Your task to perform on an android device: Go to accessibility settings Image 0: 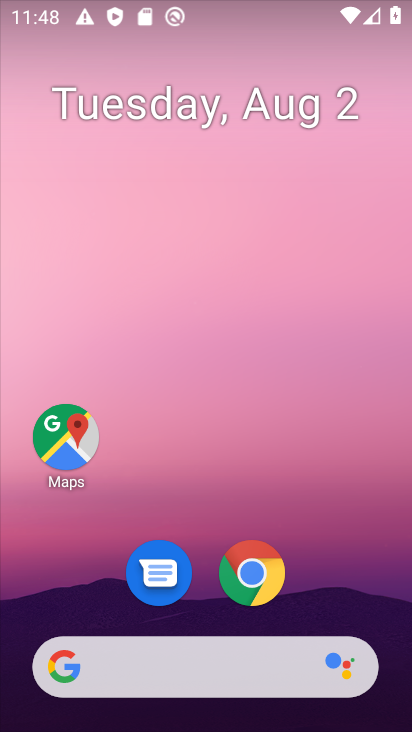
Step 0: drag from (228, 424) to (56, 720)
Your task to perform on an android device: Go to accessibility settings Image 1: 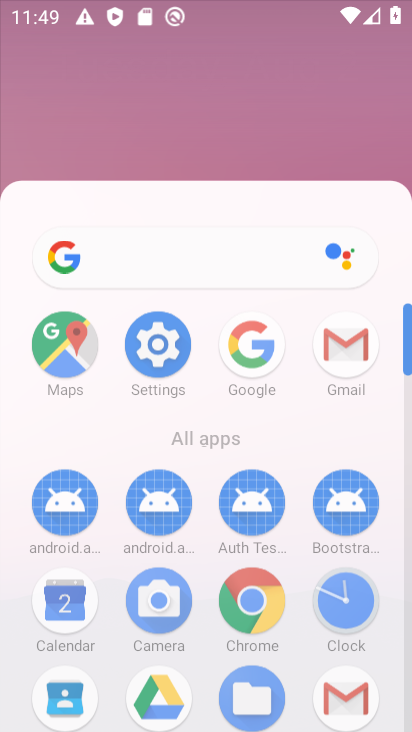
Step 1: drag from (134, 507) to (158, 173)
Your task to perform on an android device: Go to accessibility settings Image 2: 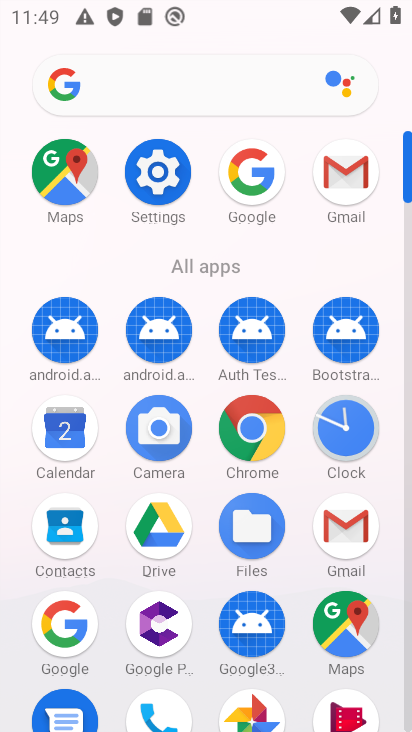
Step 2: drag from (204, 593) to (195, 177)
Your task to perform on an android device: Go to accessibility settings Image 3: 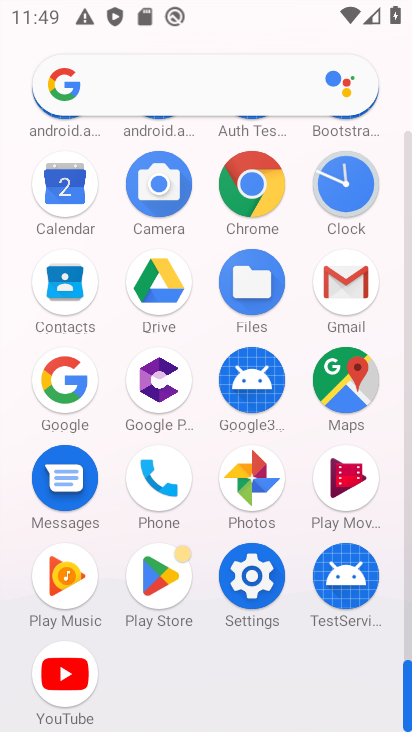
Step 3: drag from (211, 553) to (193, 163)
Your task to perform on an android device: Go to accessibility settings Image 4: 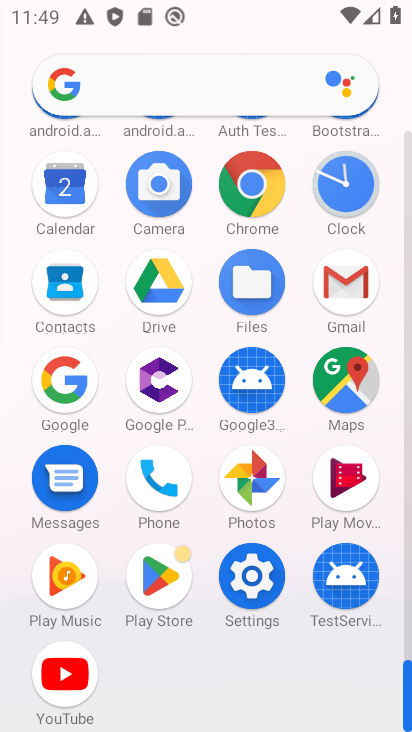
Step 4: click (243, 557)
Your task to perform on an android device: Go to accessibility settings Image 5: 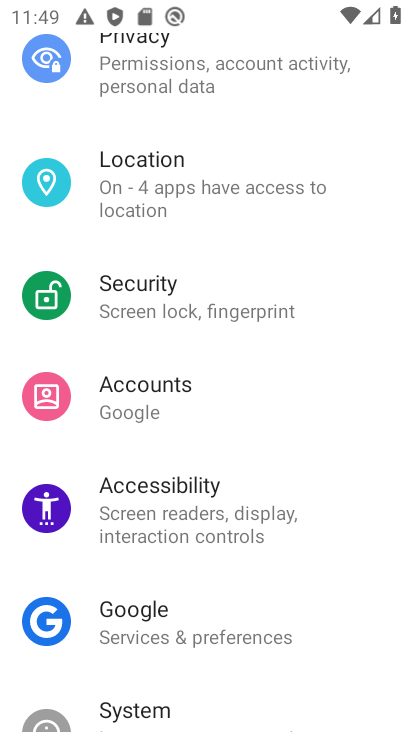
Step 5: drag from (173, 564) to (190, 115)
Your task to perform on an android device: Go to accessibility settings Image 6: 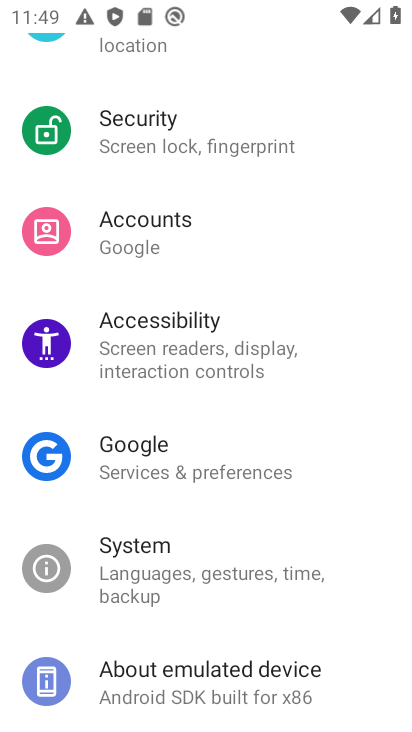
Step 6: click (261, 348)
Your task to perform on an android device: Go to accessibility settings Image 7: 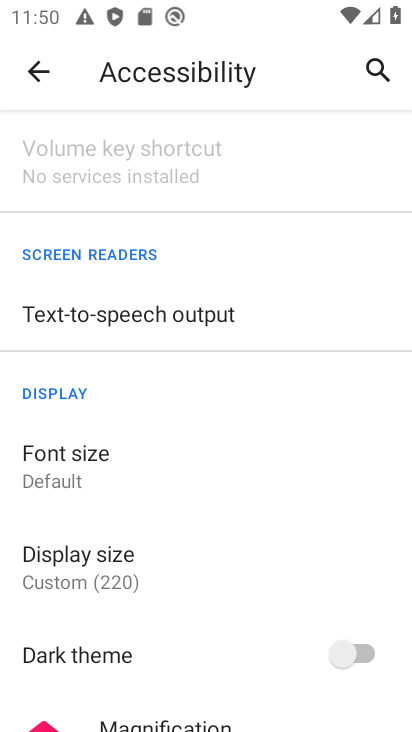
Step 7: click (250, 484)
Your task to perform on an android device: Go to accessibility settings Image 8: 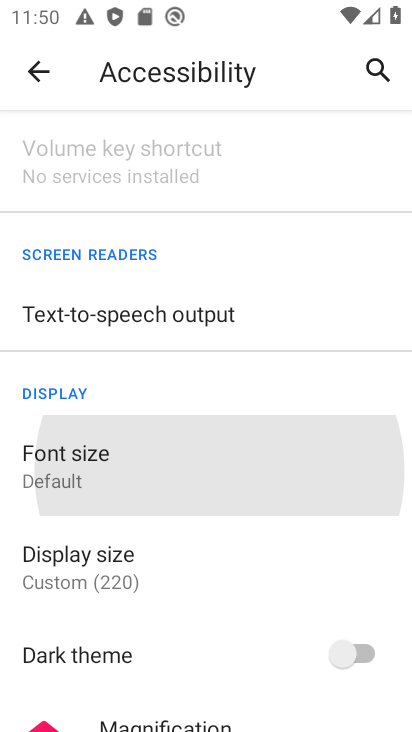
Step 8: task complete